Your task to perform on an android device: delete location history Image 0: 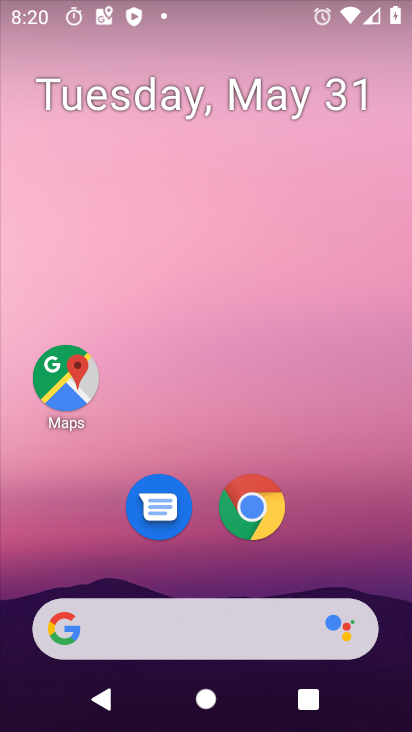
Step 0: click (62, 392)
Your task to perform on an android device: delete location history Image 1: 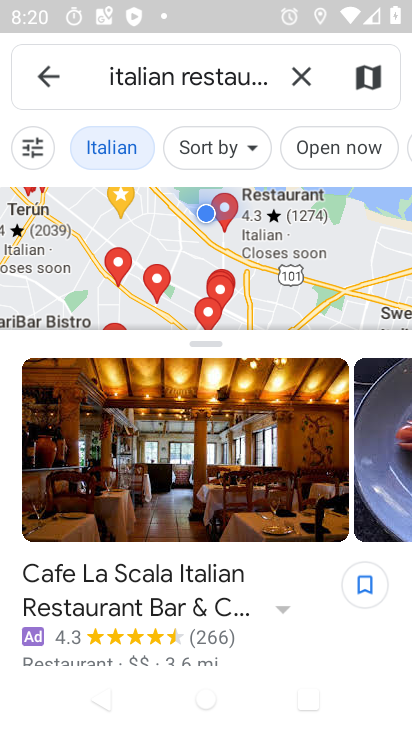
Step 1: click (308, 82)
Your task to perform on an android device: delete location history Image 2: 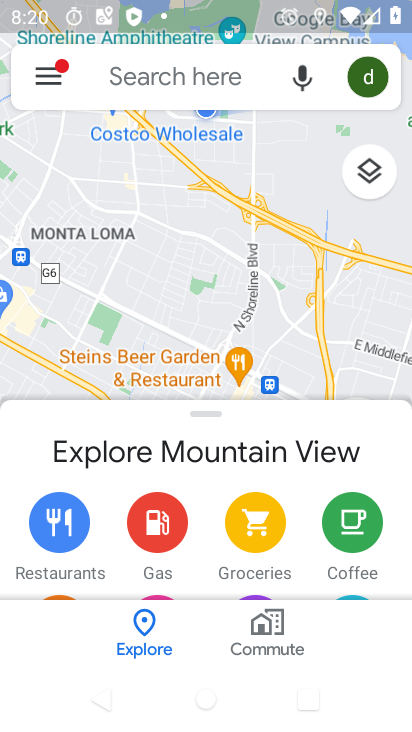
Step 2: click (49, 80)
Your task to perform on an android device: delete location history Image 3: 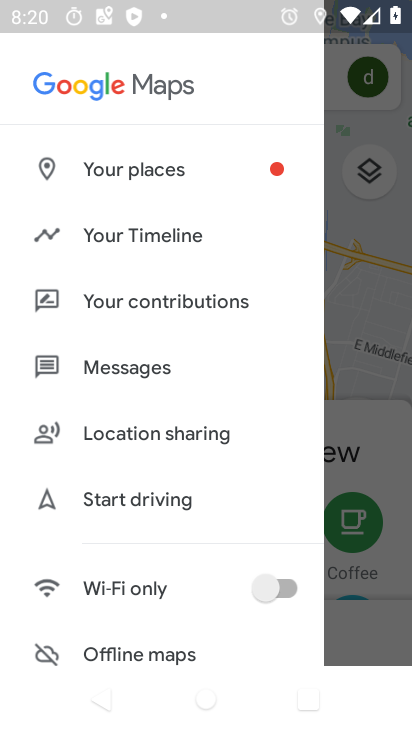
Step 3: click (157, 241)
Your task to perform on an android device: delete location history Image 4: 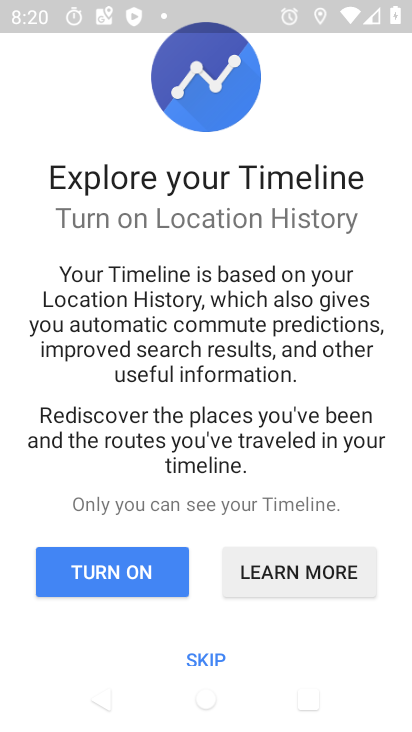
Step 4: click (211, 659)
Your task to perform on an android device: delete location history Image 5: 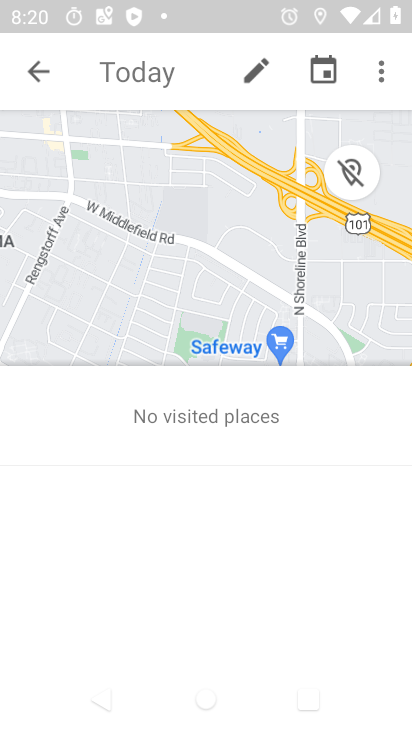
Step 5: click (380, 78)
Your task to perform on an android device: delete location history Image 6: 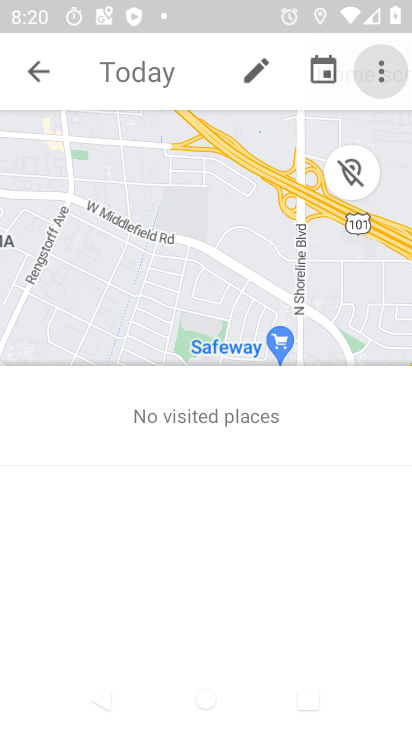
Step 6: click (380, 78)
Your task to perform on an android device: delete location history Image 7: 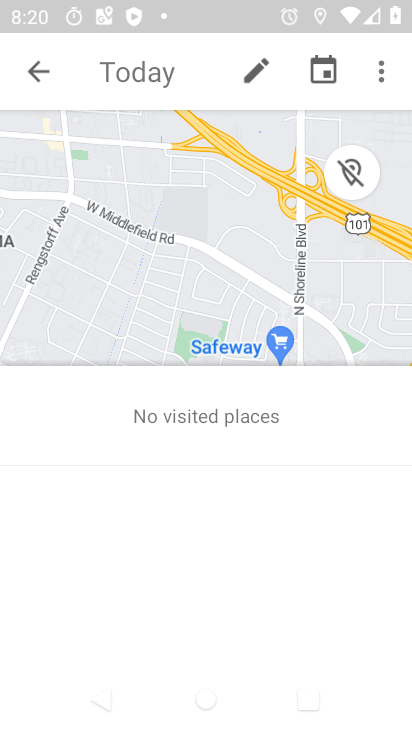
Step 7: click (379, 74)
Your task to perform on an android device: delete location history Image 8: 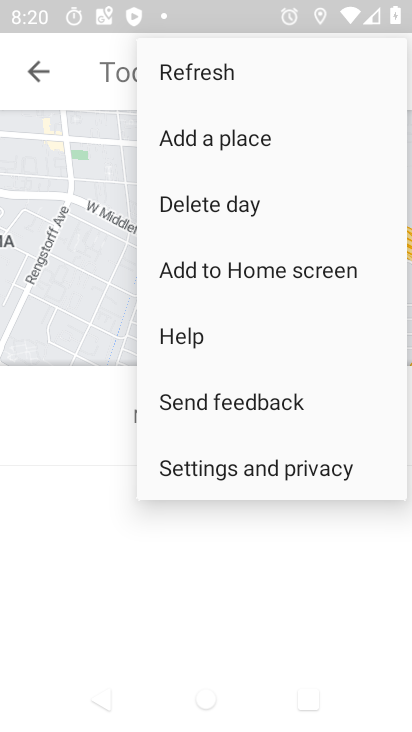
Step 8: click (243, 476)
Your task to perform on an android device: delete location history Image 9: 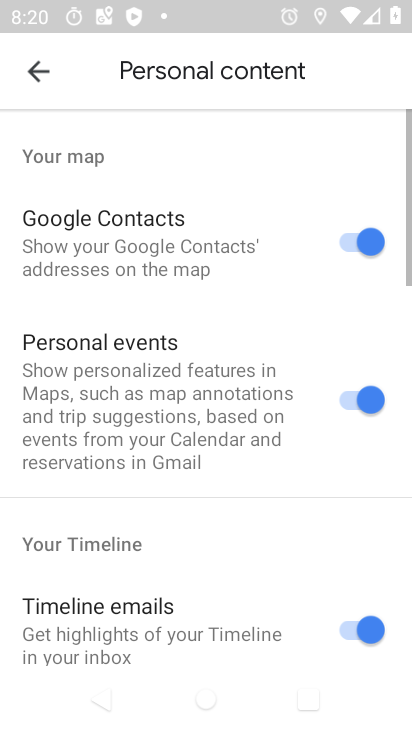
Step 9: drag from (204, 552) to (203, 137)
Your task to perform on an android device: delete location history Image 10: 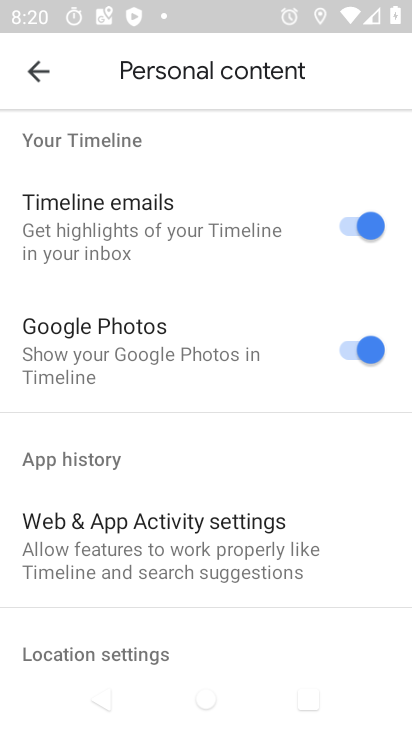
Step 10: drag from (152, 540) to (138, 143)
Your task to perform on an android device: delete location history Image 11: 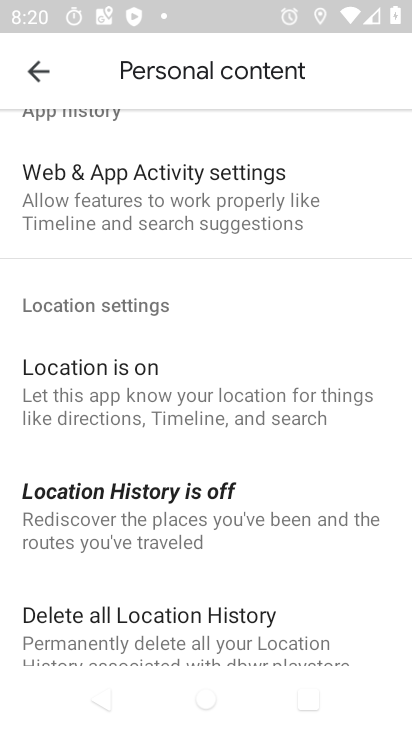
Step 11: click (117, 631)
Your task to perform on an android device: delete location history Image 12: 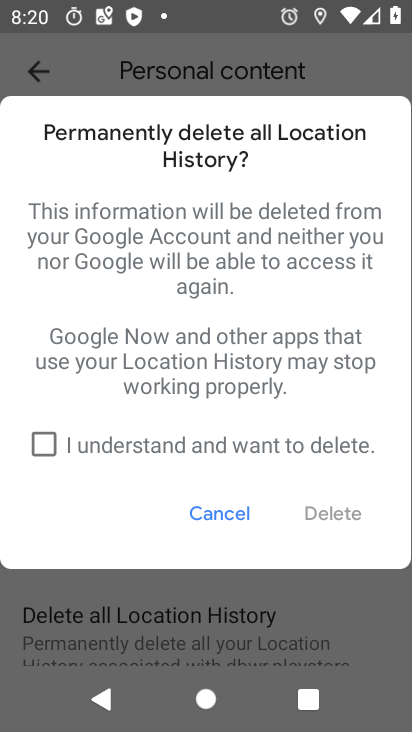
Step 12: click (44, 444)
Your task to perform on an android device: delete location history Image 13: 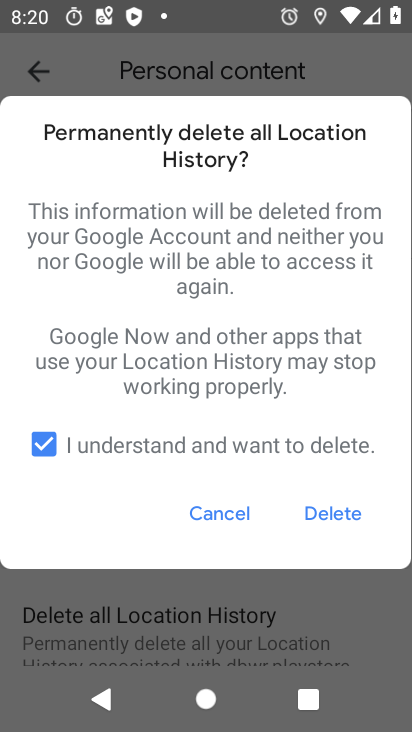
Step 13: click (322, 512)
Your task to perform on an android device: delete location history Image 14: 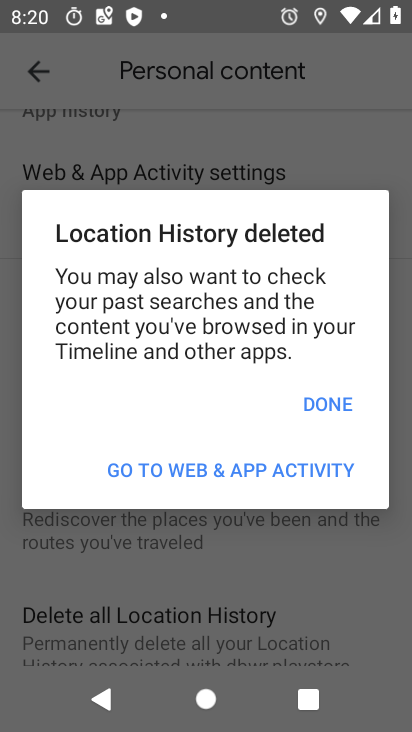
Step 14: click (334, 400)
Your task to perform on an android device: delete location history Image 15: 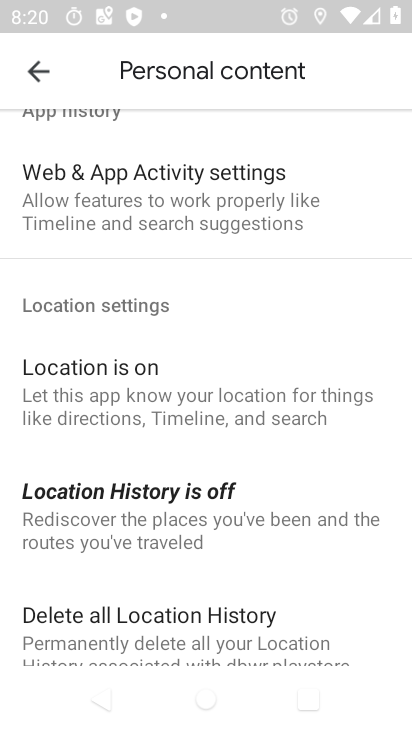
Step 15: task complete